Your task to perform on an android device: check android version Image 0: 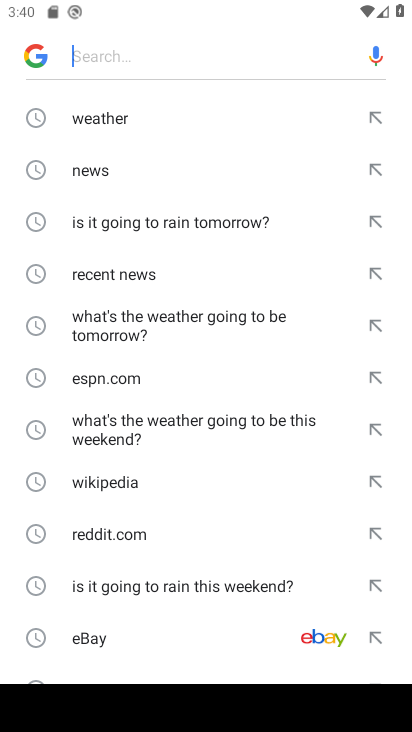
Step 0: press home button
Your task to perform on an android device: check android version Image 1: 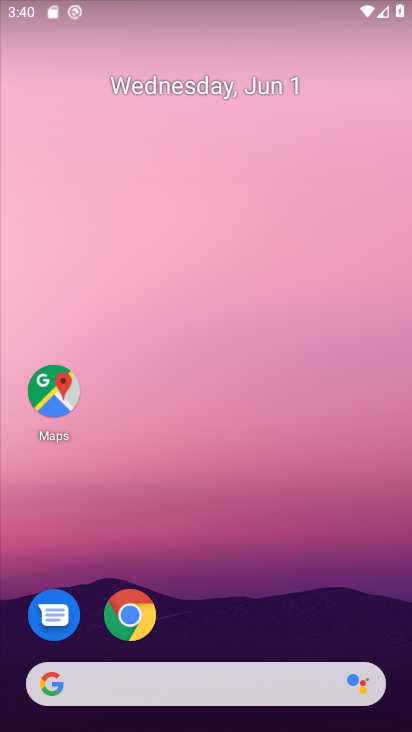
Step 1: drag from (266, 570) to (274, 83)
Your task to perform on an android device: check android version Image 2: 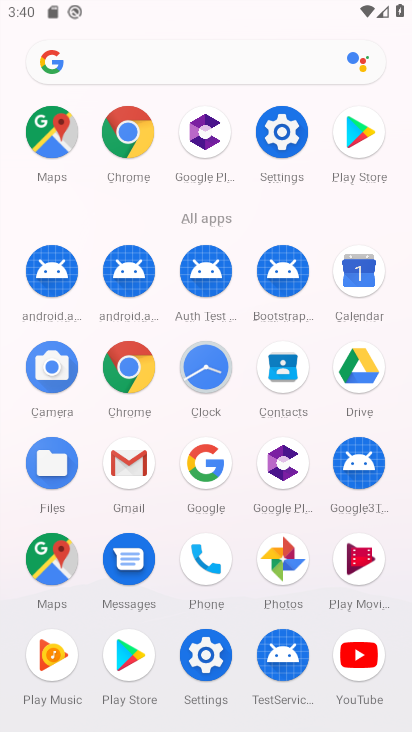
Step 2: click (296, 130)
Your task to perform on an android device: check android version Image 3: 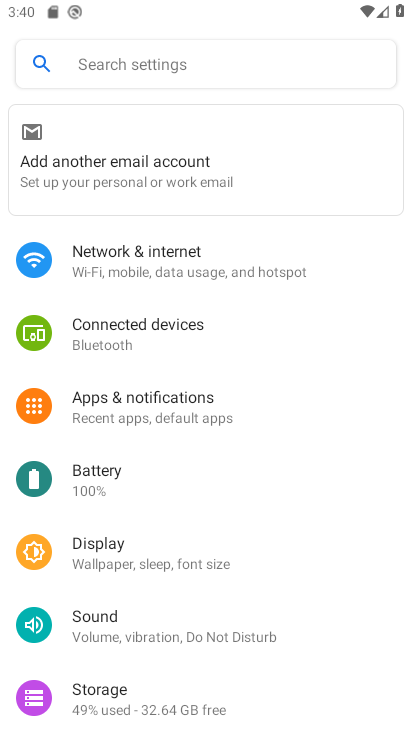
Step 3: drag from (175, 597) to (295, 1)
Your task to perform on an android device: check android version Image 4: 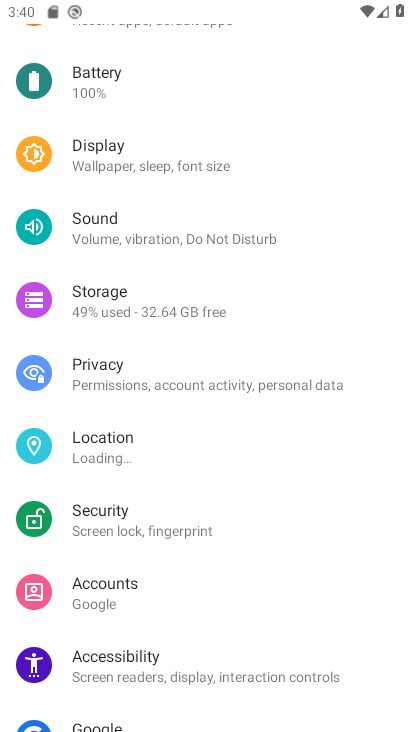
Step 4: drag from (159, 578) to (253, 109)
Your task to perform on an android device: check android version Image 5: 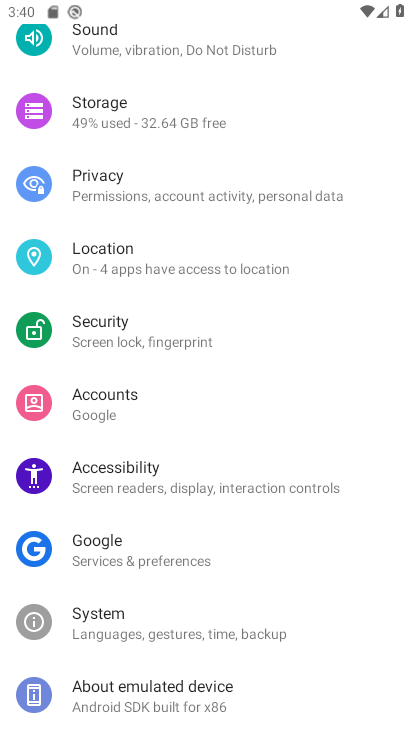
Step 5: click (115, 697)
Your task to perform on an android device: check android version Image 6: 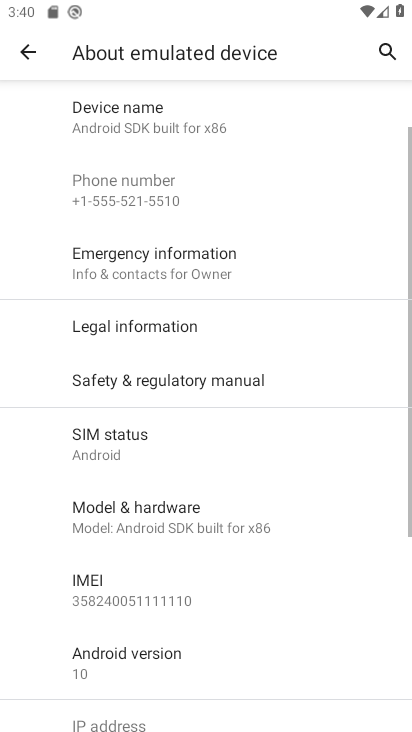
Step 6: click (167, 651)
Your task to perform on an android device: check android version Image 7: 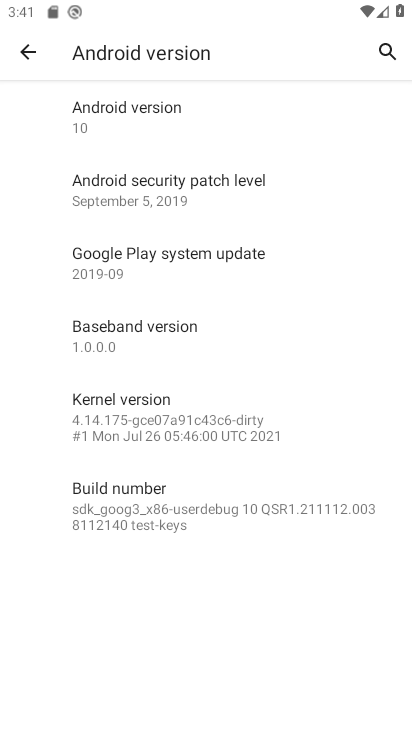
Step 7: task complete